Your task to perform on an android device: Open the web browser Image 0: 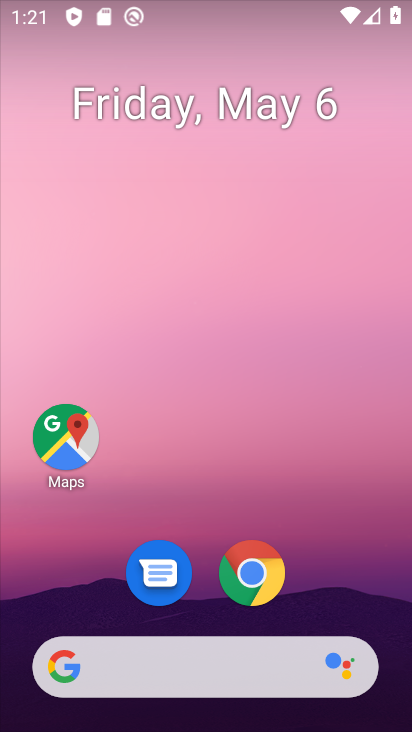
Step 0: click (250, 585)
Your task to perform on an android device: Open the web browser Image 1: 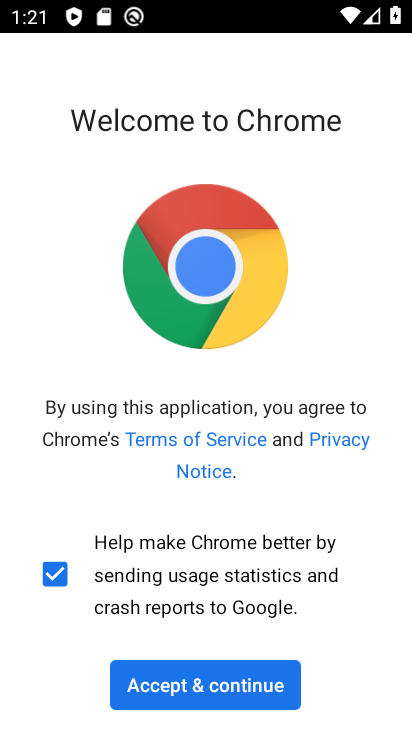
Step 1: click (242, 686)
Your task to perform on an android device: Open the web browser Image 2: 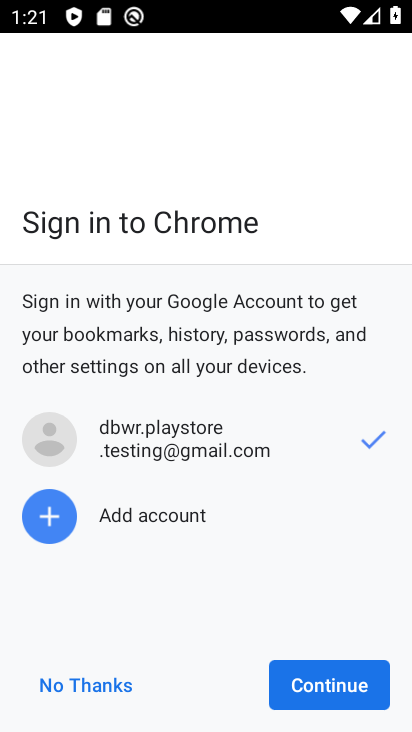
Step 2: click (303, 676)
Your task to perform on an android device: Open the web browser Image 3: 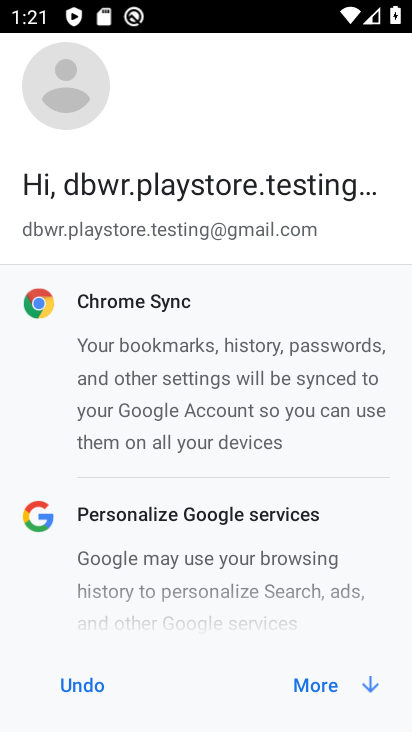
Step 3: click (314, 684)
Your task to perform on an android device: Open the web browser Image 4: 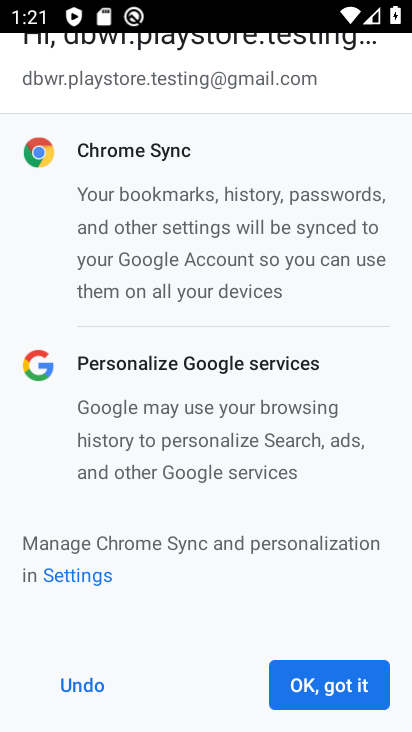
Step 4: click (314, 684)
Your task to perform on an android device: Open the web browser Image 5: 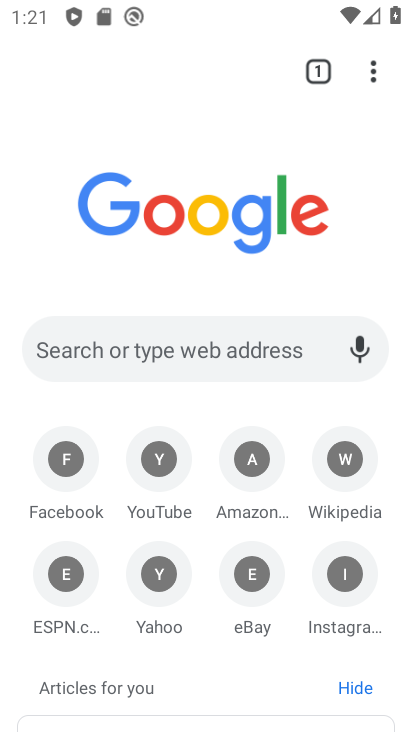
Step 5: task complete